Your task to perform on an android device: turn off airplane mode Image 0: 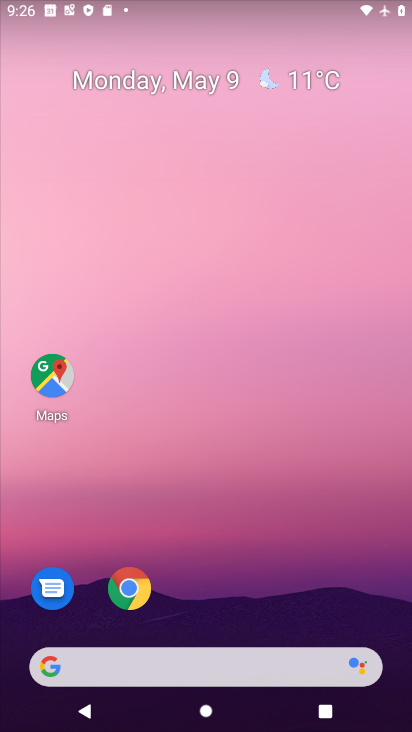
Step 0: drag from (156, 661) to (305, 106)
Your task to perform on an android device: turn off airplane mode Image 1: 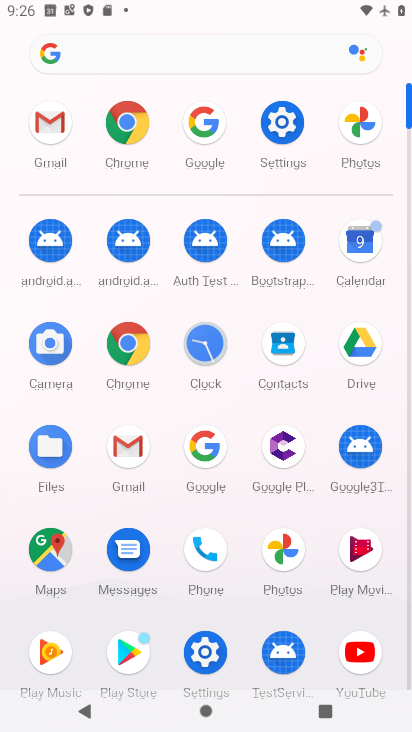
Step 1: click (281, 117)
Your task to perform on an android device: turn off airplane mode Image 2: 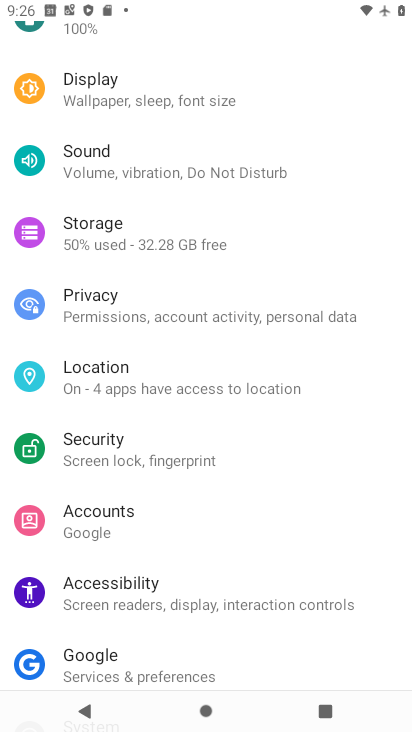
Step 2: drag from (249, 56) to (148, 536)
Your task to perform on an android device: turn off airplane mode Image 3: 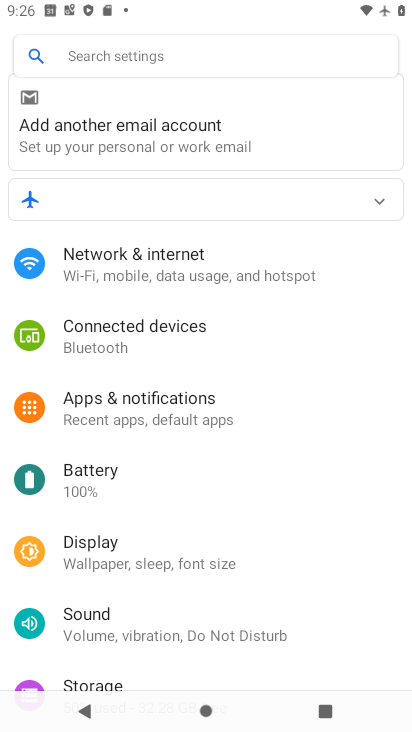
Step 3: click (191, 257)
Your task to perform on an android device: turn off airplane mode Image 4: 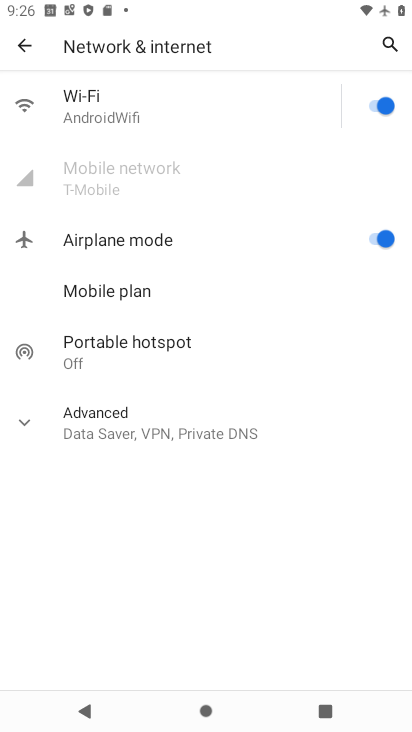
Step 4: click (370, 238)
Your task to perform on an android device: turn off airplane mode Image 5: 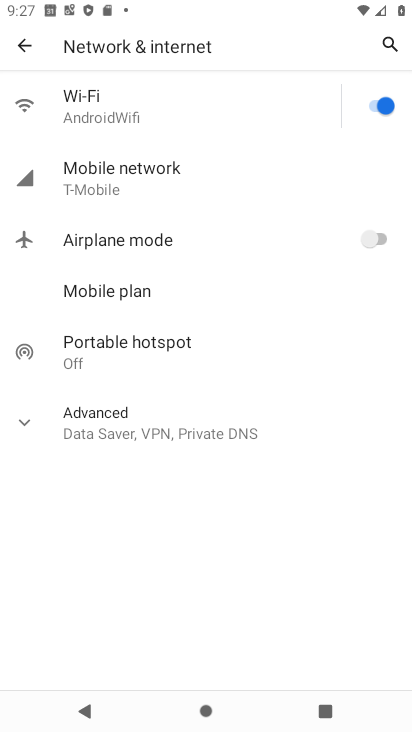
Step 5: task complete